Your task to perform on an android device: turn off wifi Image 0: 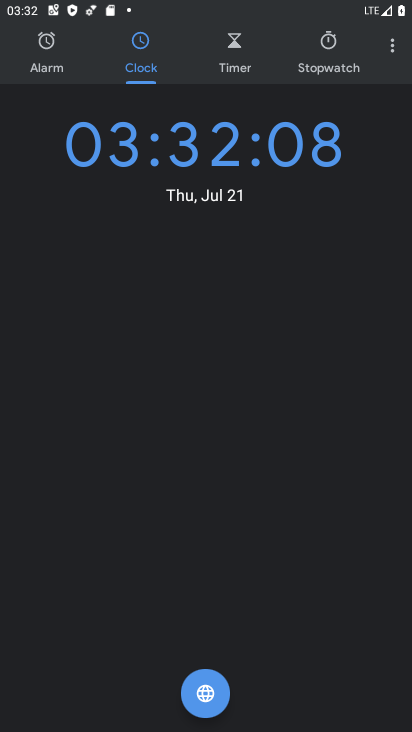
Step 0: drag from (221, 11) to (210, 435)
Your task to perform on an android device: turn off wifi Image 1: 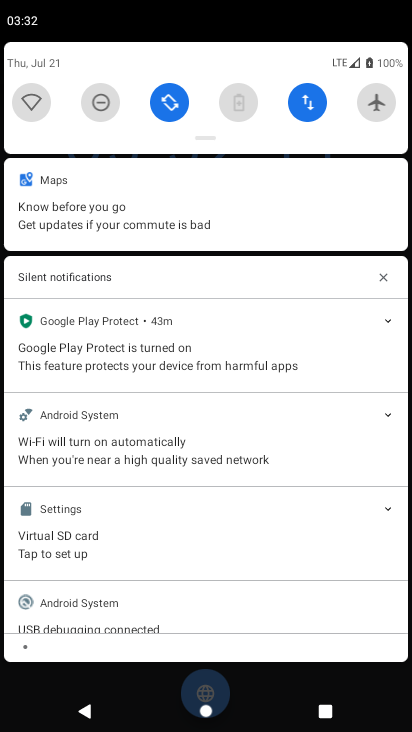
Step 1: task complete